Your task to perform on an android device: Search for lg ultragear on ebay, select the first entry, and add it to the cart. Image 0: 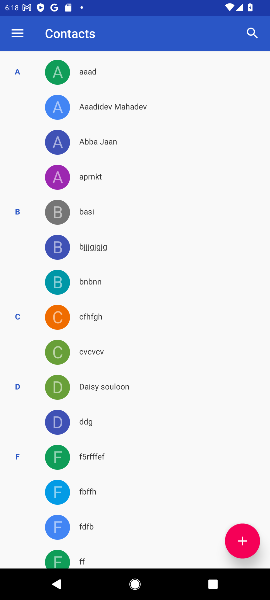
Step 0: press home button
Your task to perform on an android device: Search for lg ultragear on ebay, select the first entry, and add it to the cart. Image 1: 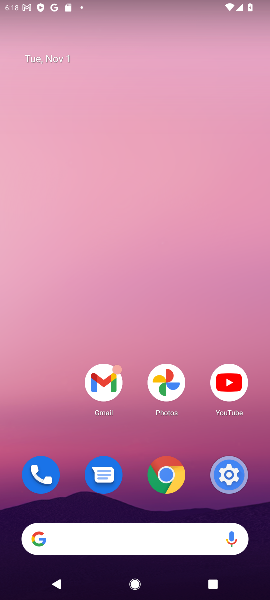
Step 1: click (128, 538)
Your task to perform on an android device: Search for lg ultragear on ebay, select the first entry, and add it to the cart. Image 2: 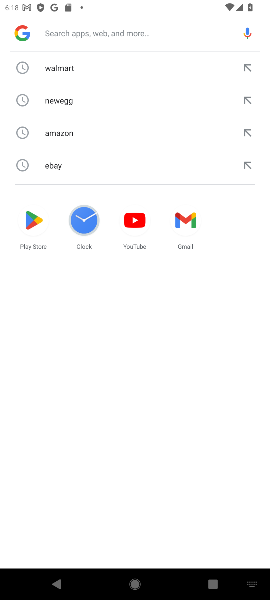
Step 2: click (72, 166)
Your task to perform on an android device: Search for lg ultragear on ebay, select the first entry, and add it to the cart. Image 3: 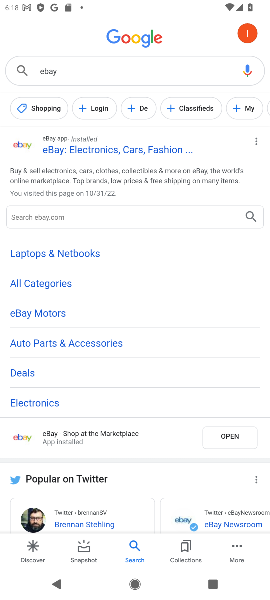
Step 3: click (95, 148)
Your task to perform on an android device: Search for lg ultragear on ebay, select the first entry, and add it to the cart. Image 4: 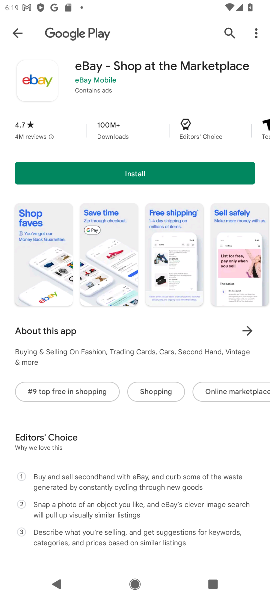
Step 4: press back button
Your task to perform on an android device: Search for lg ultragear on ebay, select the first entry, and add it to the cart. Image 5: 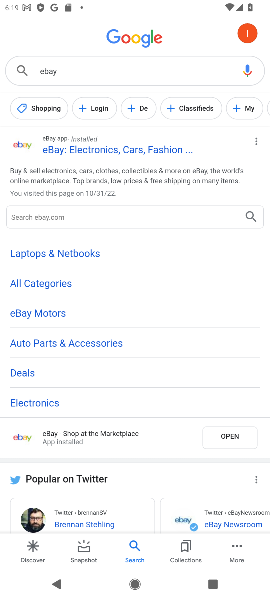
Step 5: drag from (81, 483) to (107, 316)
Your task to perform on an android device: Search for lg ultragear on ebay, select the first entry, and add it to the cart. Image 6: 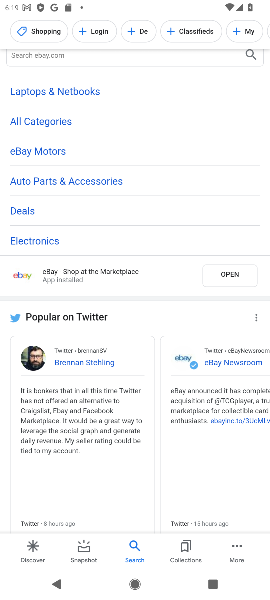
Step 6: drag from (152, 411) to (134, 299)
Your task to perform on an android device: Search for lg ultragear on ebay, select the first entry, and add it to the cart. Image 7: 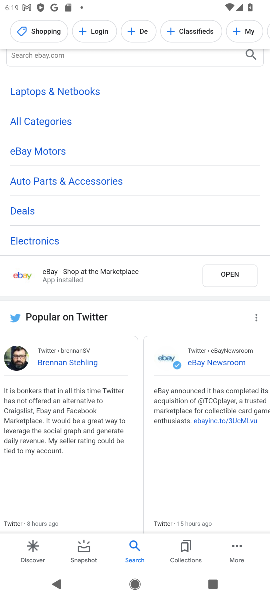
Step 7: drag from (138, 433) to (128, 338)
Your task to perform on an android device: Search for lg ultragear on ebay, select the first entry, and add it to the cart. Image 8: 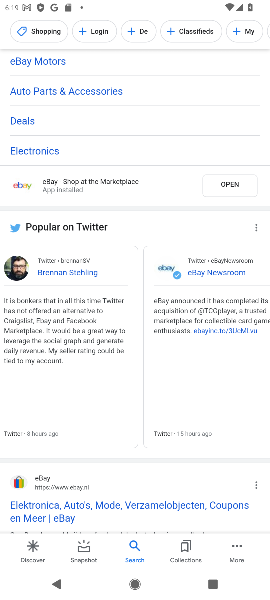
Step 8: click (52, 477)
Your task to perform on an android device: Search for lg ultragear on ebay, select the first entry, and add it to the cart. Image 9: 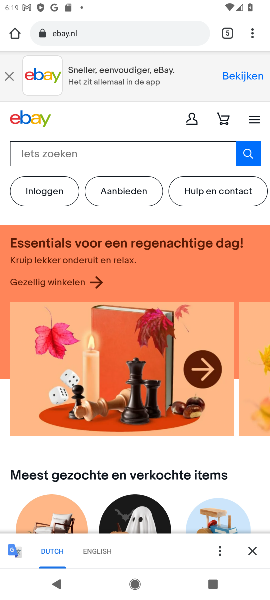
Step 9: click (138, 150)
Your task to perform on an android device: Search for lg ultragear on ebay, select the first entry, and add it to the cart. Image 10: 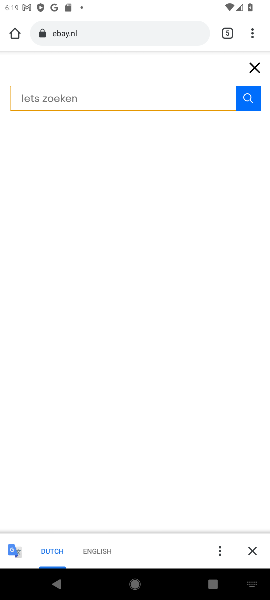
Step 10: type "lg ultragear"
Your task to perform on an android device: Search for lg ultragear on ebay, select the first entry, and add it to the cart. Image 11: 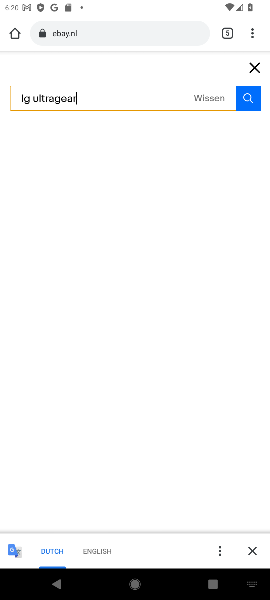
Step 11: click (241, 95)
Your task to perform on an android device: Search for lg ultragear on ebay, select the first entry, and add it to the cart. Image 12: 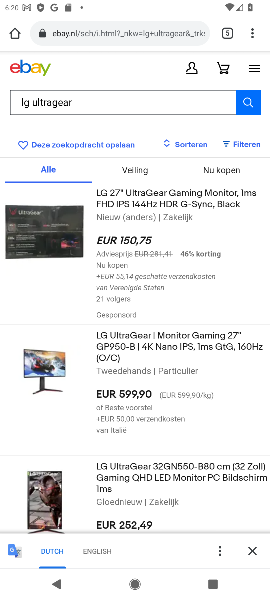
Step 12: click (119, 373)
Your task to perform on an android device: Search for lg ultragear on ebay, select the first entry, and add it to the cart. Image 13: 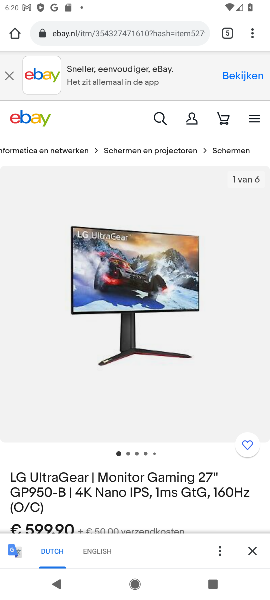
Step 13: drag from (172, 500) to (158, 341)
Your task to perform on an android device: Search for lg ultragear on ebay, select the first entry, and add it to the cart. Image 14: 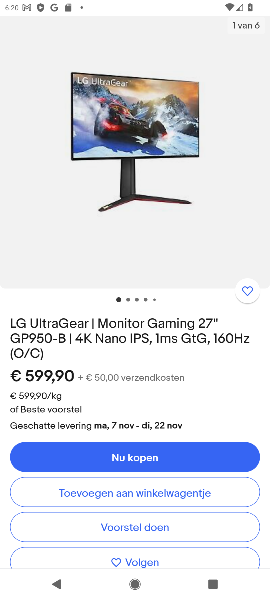
Step 14: click (142, 480)
Your task to perform on an android device: Search for lg ultragear on ebay, select the first entry, and add it to the cart. Image 15: 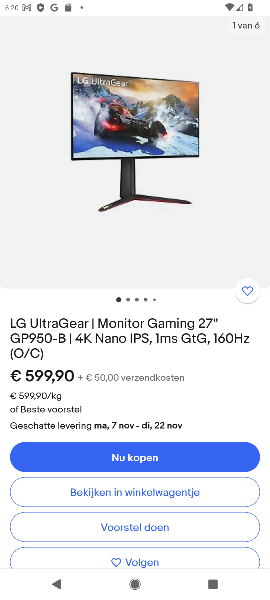
Step 15: task complete